Your task to perform on an android device: toggle pop-ups in chrome Image 0: 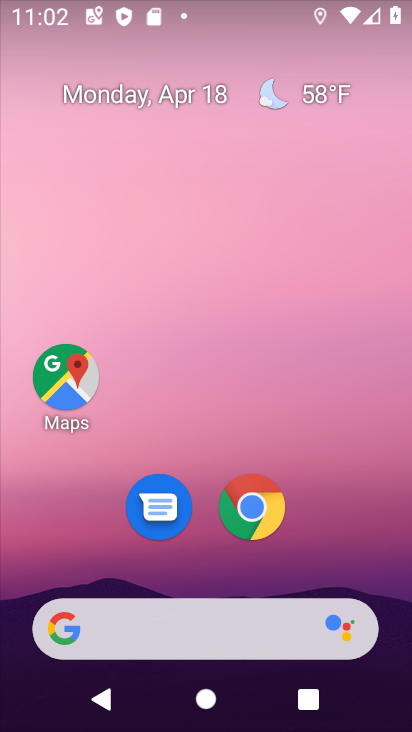
Step 0: click (252, 511)
Your task to perform on an android device: toggle pop-ups in chrome Image 1: 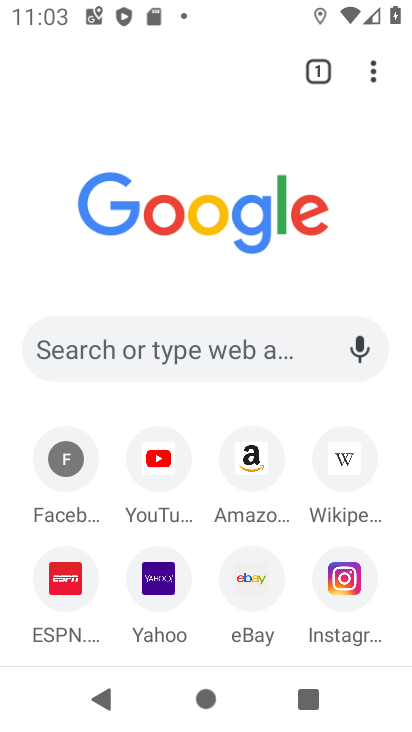
Step 1: click (382, 68)
Your task to perform on an android device: toggle pop-ups in chrome Image 2: 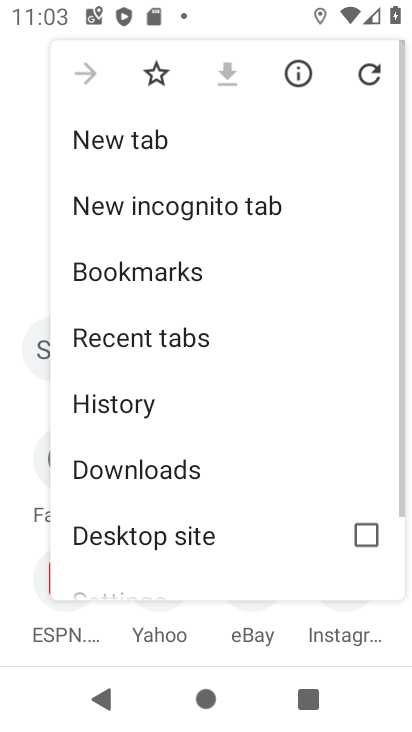
Step 2: drag from (197, 536) to (286, 11)
Your task to perform on an android device: toggle pop-ups in chrome Image 3: 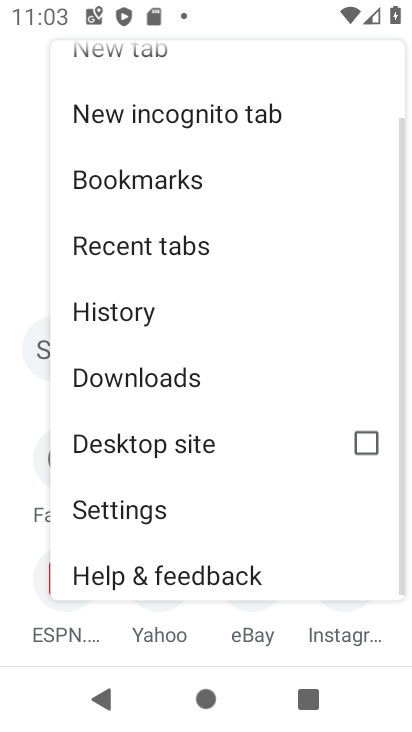
Step 3: click (136, 517)
Your task to perform on an android device: toggle pop-ups in chrome Image 4: 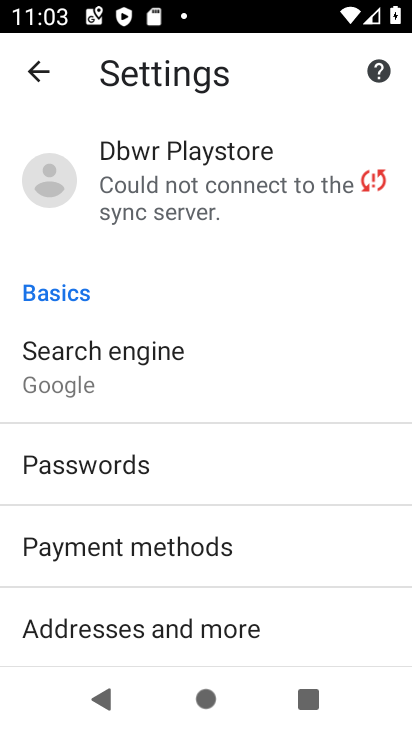
Step 4: drag from (135, 520) to (207, 199)
Your task to perform on an android device: toggle pop-ups in chrome Image 5: 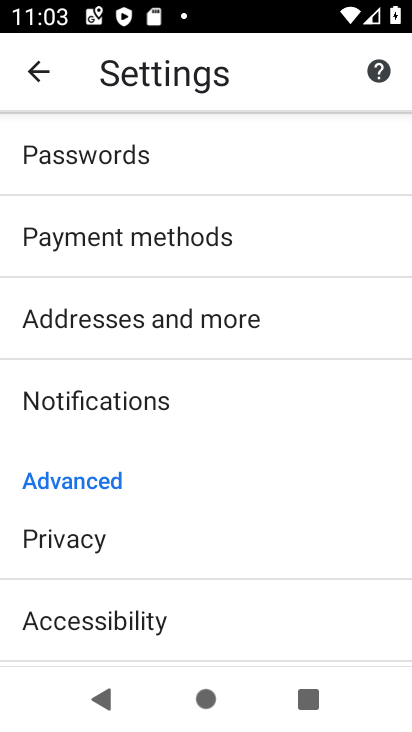
Step 5: drag from (152, 536) to (212, 144)
Your task to perform on an android device: toggle pop-ups in chrome Image 6: 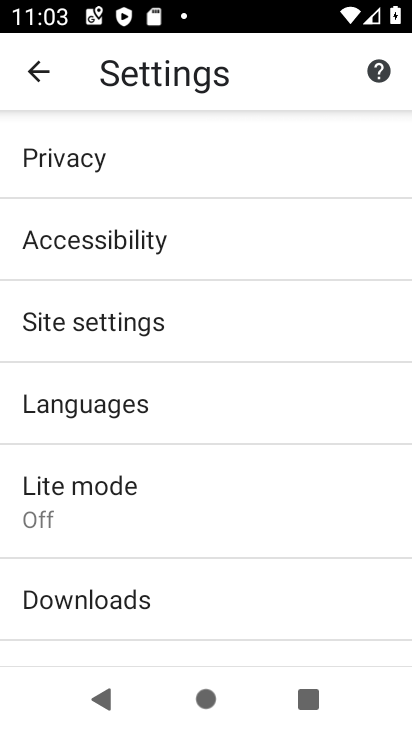
Step 6: click (113, 329)
Your task to perform on an android device: toggle pop-ups in chrome Image 7: 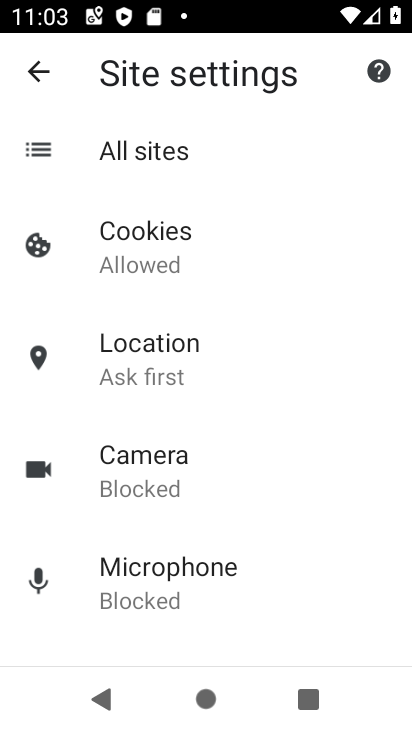
Step 7: drag from (154, 537) to (206, 125)
Your task to perform on an android device: toggle pop-ups in chrome Image 8: 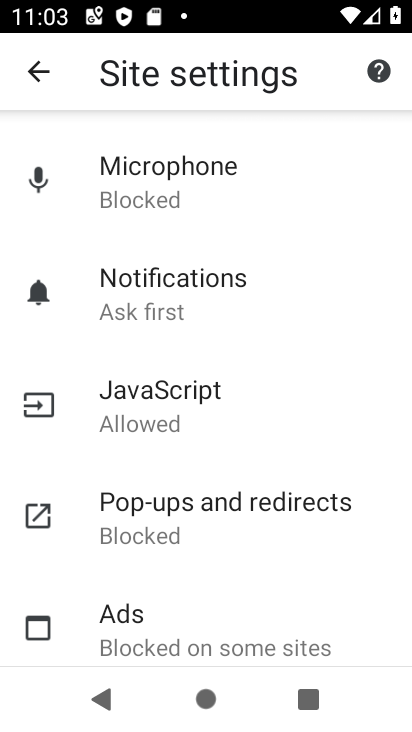
Step 8: click (146, 518)
Your task to perform on an android device: toggle pop-ups in chrome Image 9: 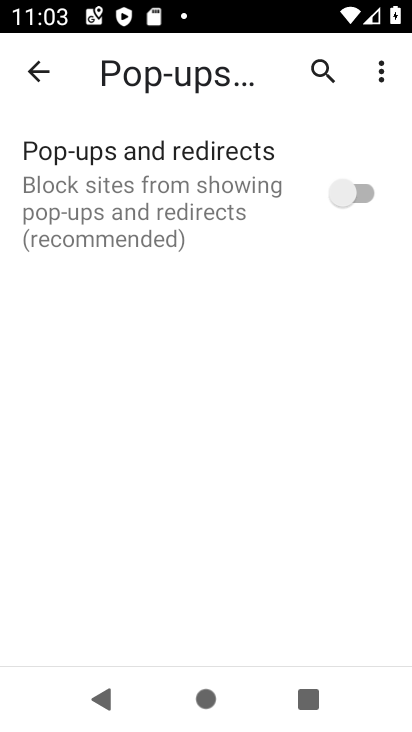
Step 9: click (345, 183)
Your task to perform on an android device: toggle pop-ups in chrome Image 10: 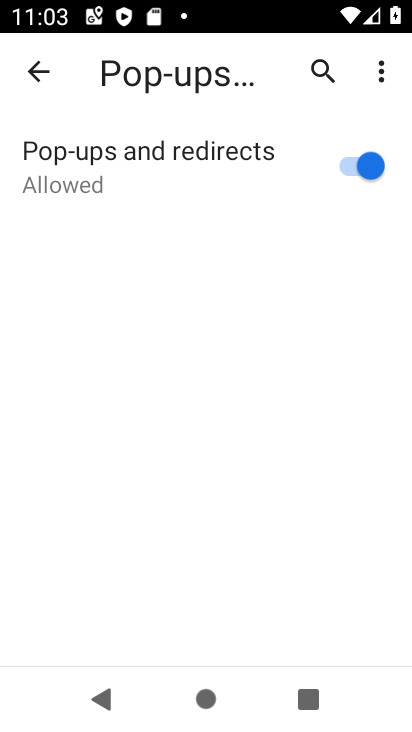
Step 10: task complete